Your task to perform on an android device: Is it going to rain today? Image 0: 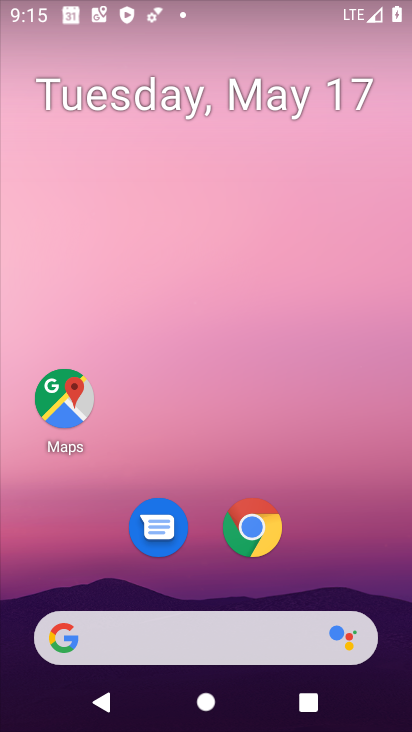
Step 0: press home button
Your task to perform on an android device: Is it going to rain today? Image 1: 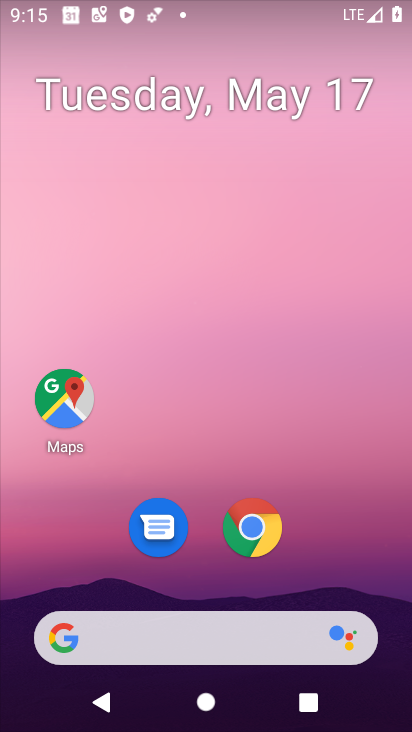
Step 1: click (71, 640)
Your task to perform on an android device: Is it going to rain today? Image 2: 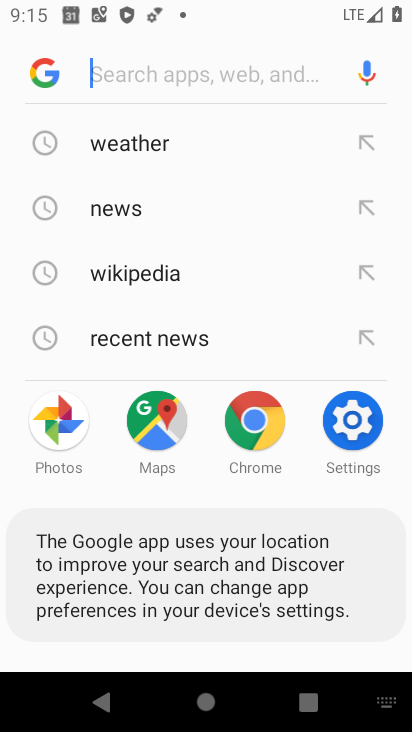
Step 2: click (143, 147)
Your task to perform on an android device: Is it going to rain today? Image 3: 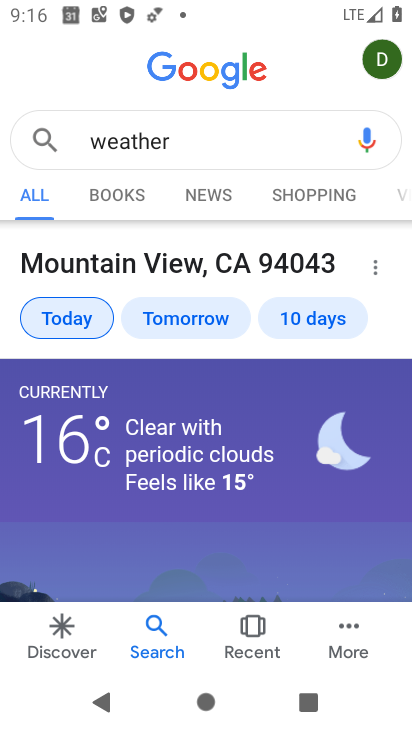
Step 3: task complete